Your task to perform on an android device: choose inbox layout in the gmail app Image 0: 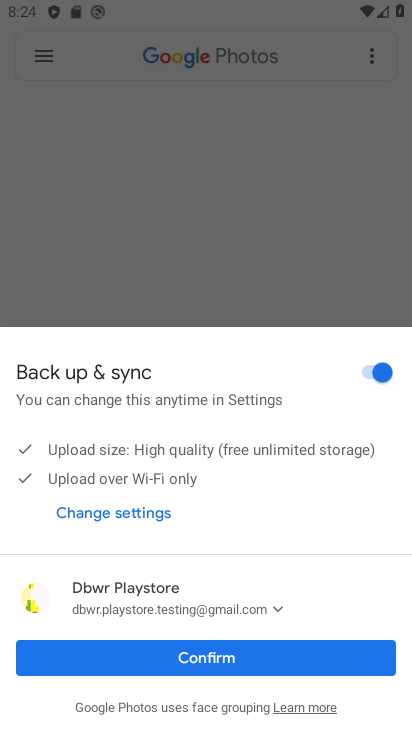
Step 0: press home button
Your task to perform on an android device: choose inbox layout in the gmail app Image 1: 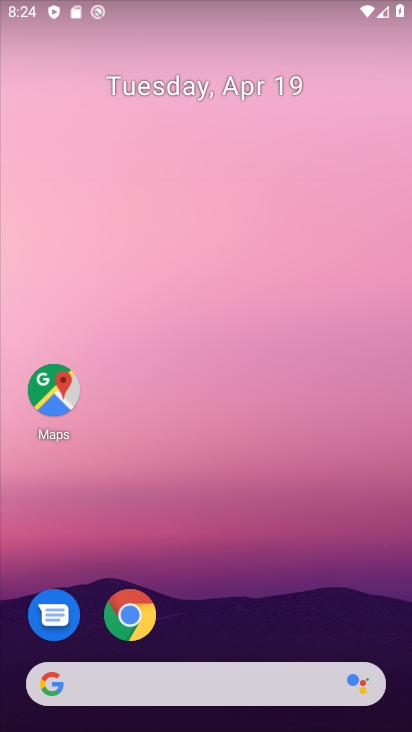
Step 1: drag from (191, 226) to (200, 102)
Your task to perform on an android device: choose inbox layout in the gmail app Image 2: 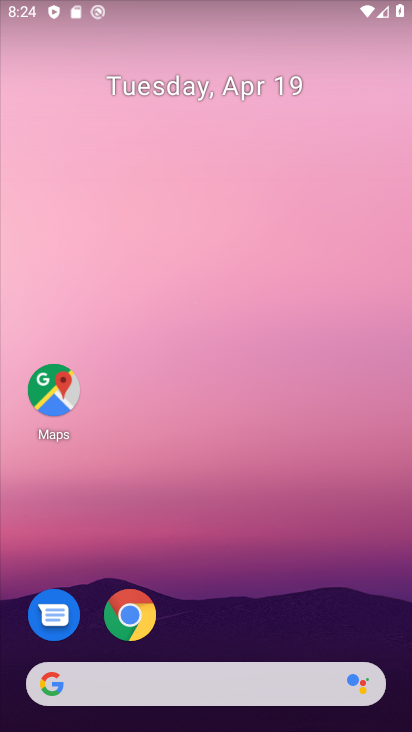
Step 2: drag from (213, 643) to (243, 21)
Your task to perform on an android device: choose inbox layout in the gmail app Image 3: 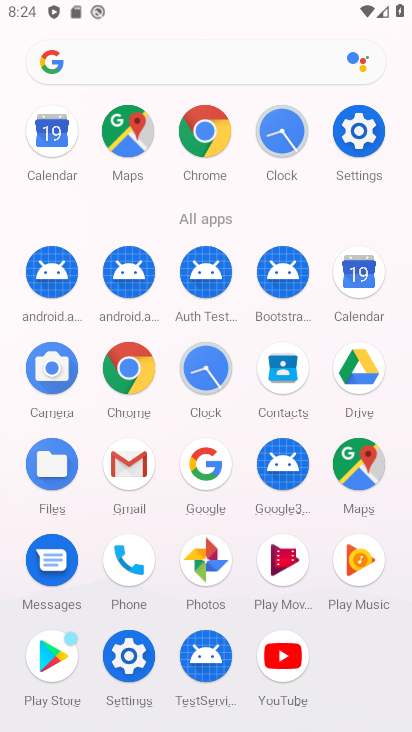
Step 3: click (121, 469)
Your task to perform on an android device: choose inbox layout in the gmail app Image 4: 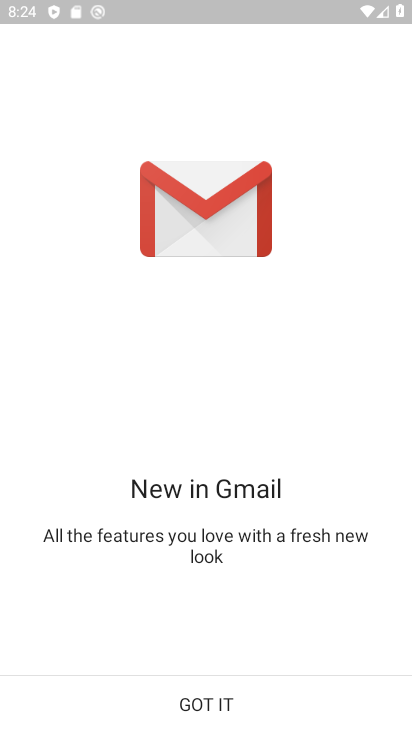
Step 4: click (189, 695)
Your task to perform on an android device: choose inbox layout in the gmail app Image 5: 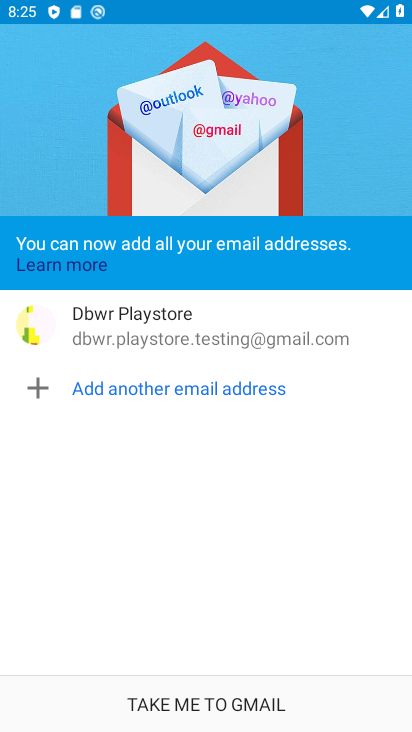
Step 5: click (189, 695)
Your task to perform on an android device: choose inbox layout in the gmail app Image 6: 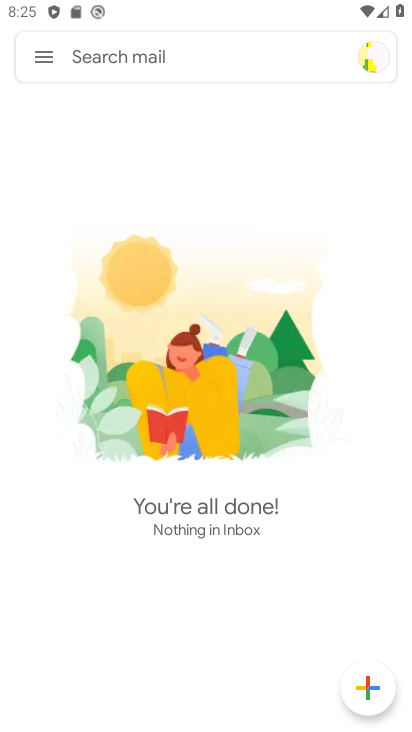
Step 6: click (41, 53)
Your task to perform on an android device: choose inbox layout in the gmail app Image 7: 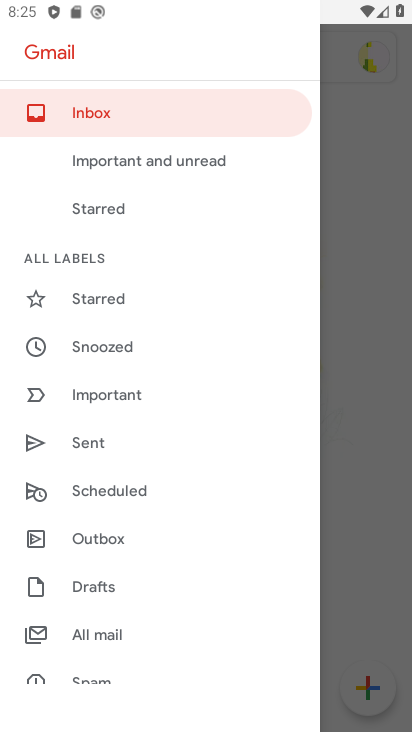
Step 7: drag from (118, 555) to (149, 64)
Your task to perform on an android device: choose inbox layout in the gmail app Image 8: 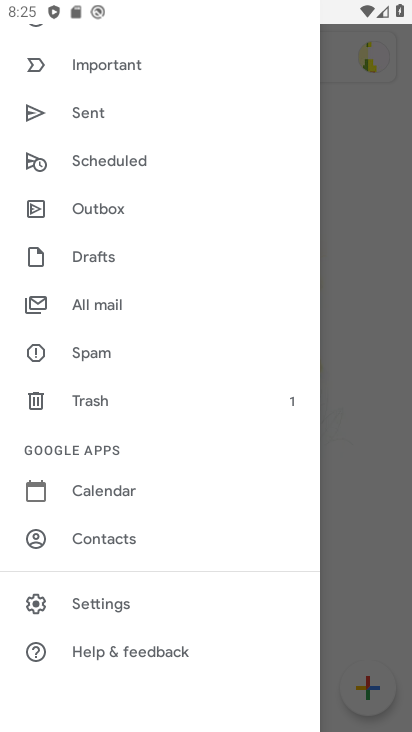
Step 8: click (95, 599)
Your task to perform on an android device: choose inbox layout in the gmail app Image 9: 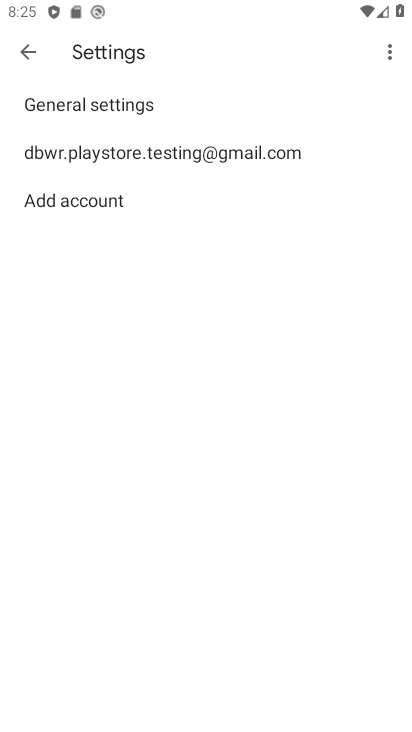
Step 9: click (126, 149)
Your task to perform on an android device: choose inbox layout in the gmail app Image 10: 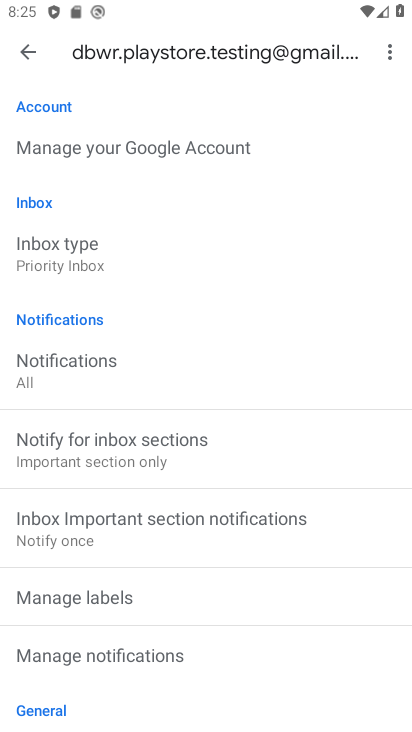
Step 10: click (98, 255)
Your task to perform on an android device: choose inbox layout in the gmail app Image 11: 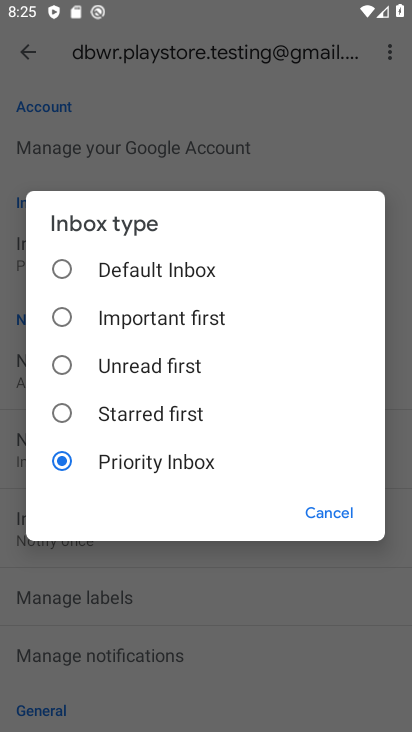
Step 11: click (63, 274)
Your task to perform on an android device: choose inbox layout in the gmail app Image 12: 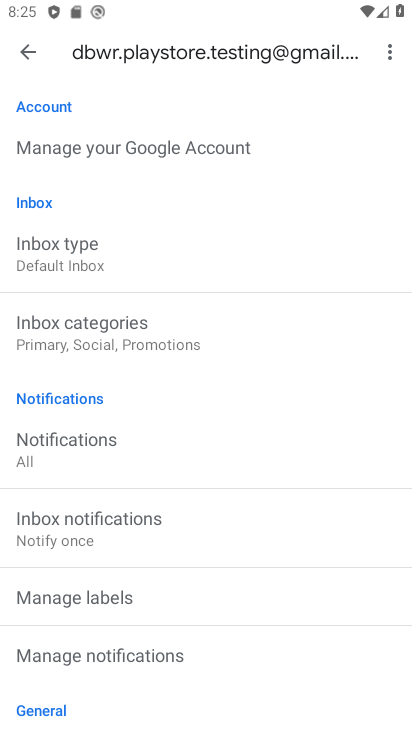
Step 12: task complete